Your task to perform on an android device: Search for the best rated headphones on Amazon Image 0: 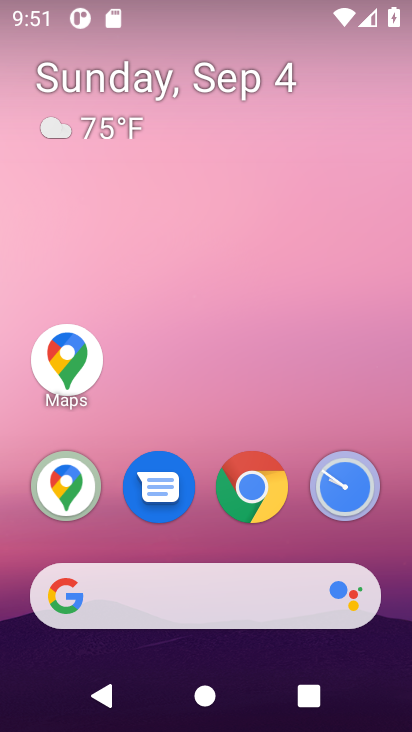
Step 0: click (250, 507)
Your task to perform on an android device: Search for the best rated headphones on Amazon Image 1: 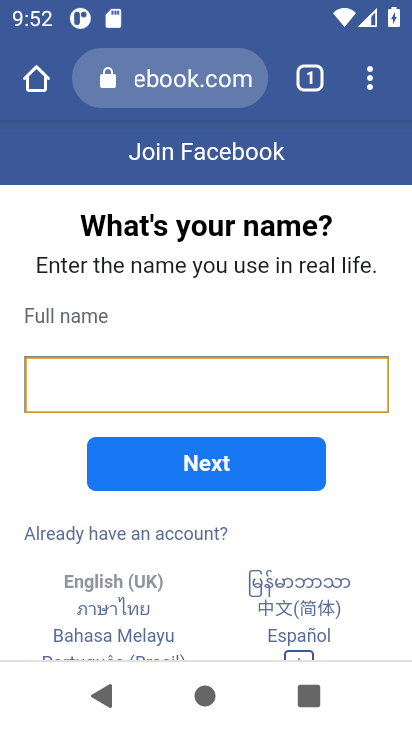
Step 1: task complete